Your task to perform on an android device: turn on location history Image 0: 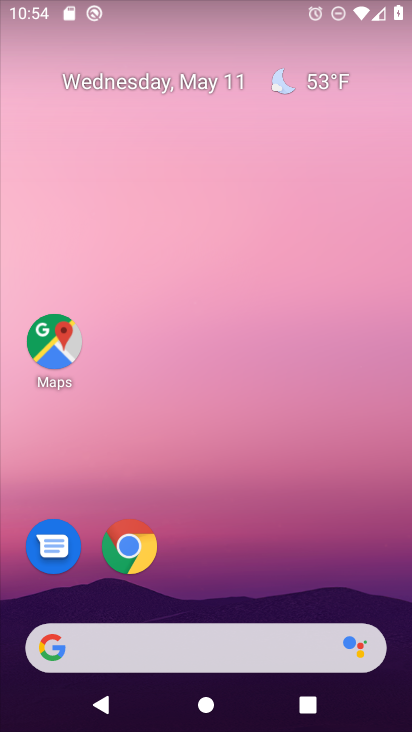
Step 0: drag from (409, 621) to (290, 132)
Your task to perform on an android device: turn on location history Image 1: 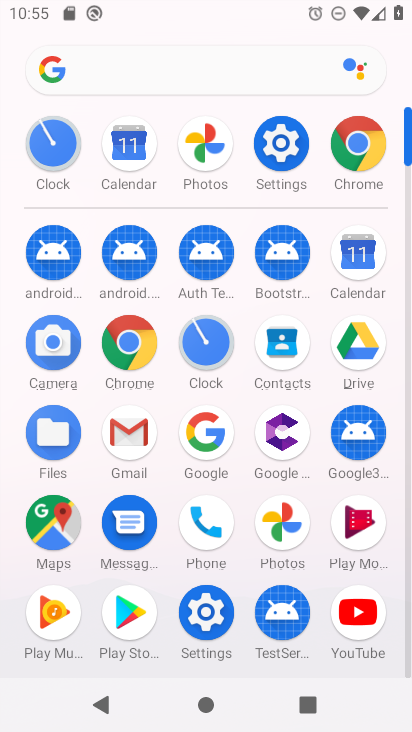
Step 1: click (221, 615)
Your task to perform on an android device: turn on location history Image 2: 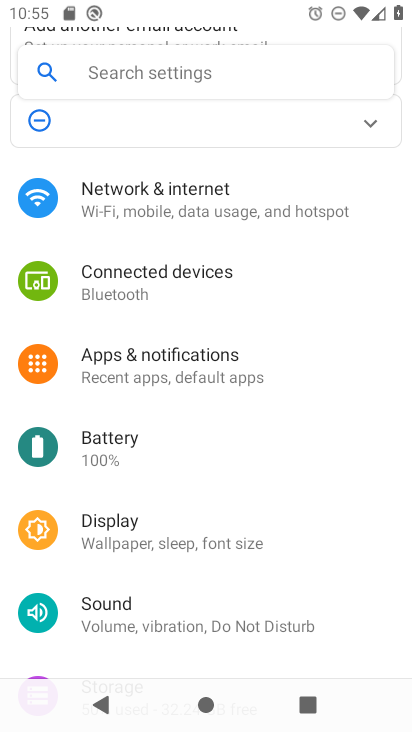
Step 2: drag from (127, 585) to (154, 245)
Your task to perform on an android device: turn on location history Image 3: 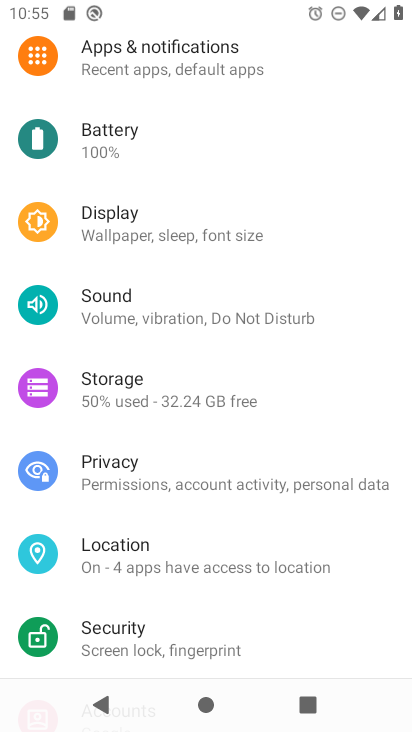
Step 3: click (156, 554)
Your task to perform on an android device: turn on location history Image 4: 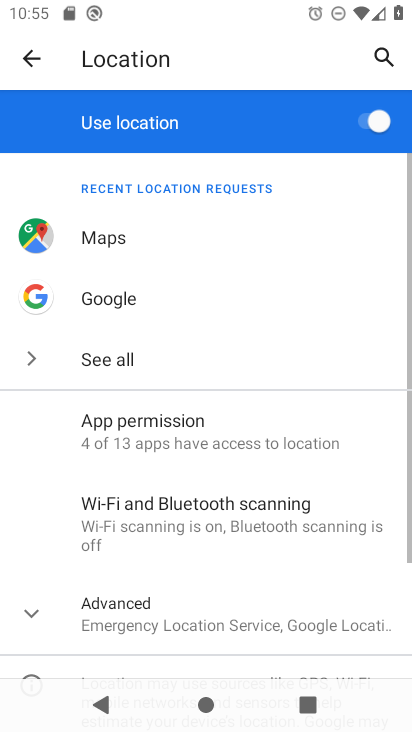
Step 4: click (87, 615)
Your task to perform on an android device: turn on location history Image 5: 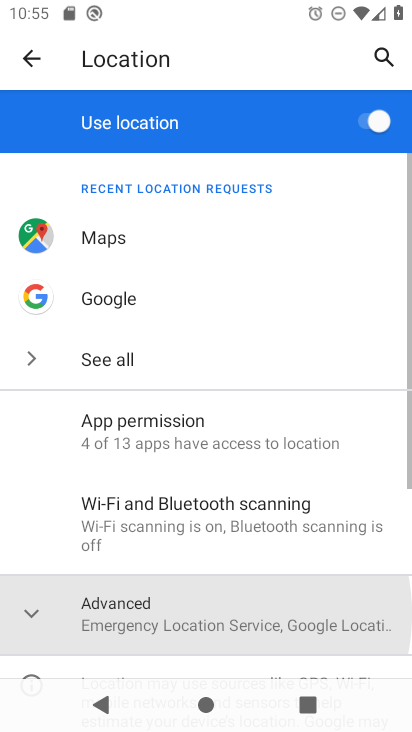
Step 5: drag from (87, 615) to (157, 341)
Your task to perform on an android device: turn on location history Image 6: 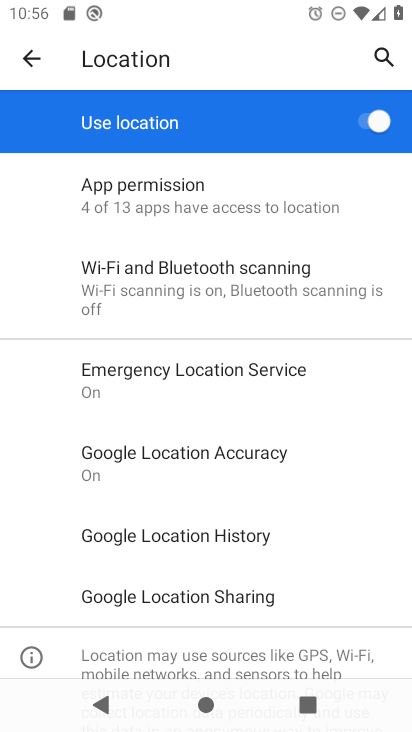
Step 6: click (213, 535)
Your task to perform on an android device: turn on location history Image 7: 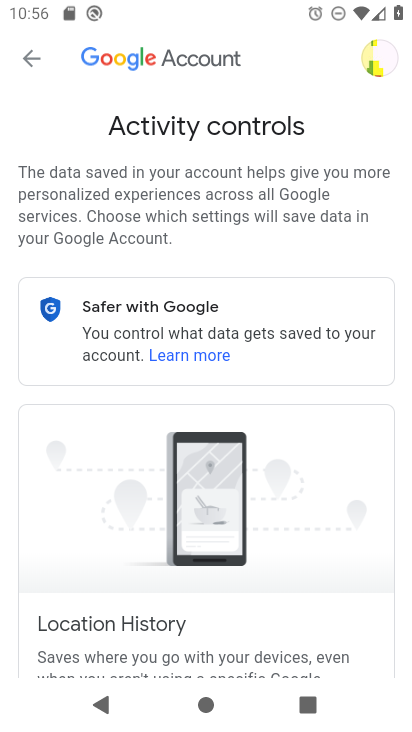
Step 7: task complete